Your task to perform on an android device: change notification settings in the gmail app Image 0: 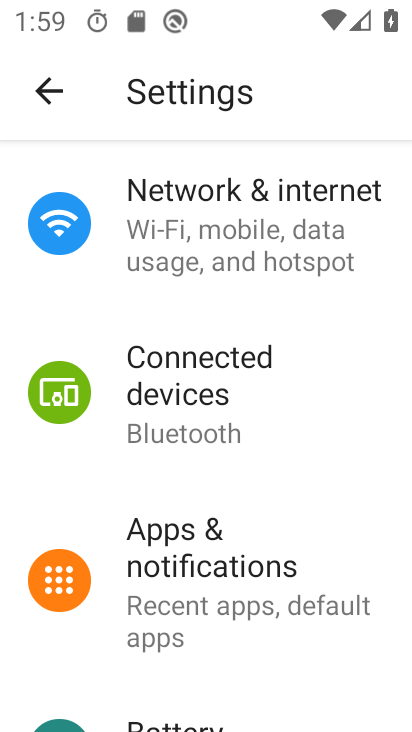
Step 0: press home button
Your task to perform on an android device: change notification settings in the gmail app Image 1: 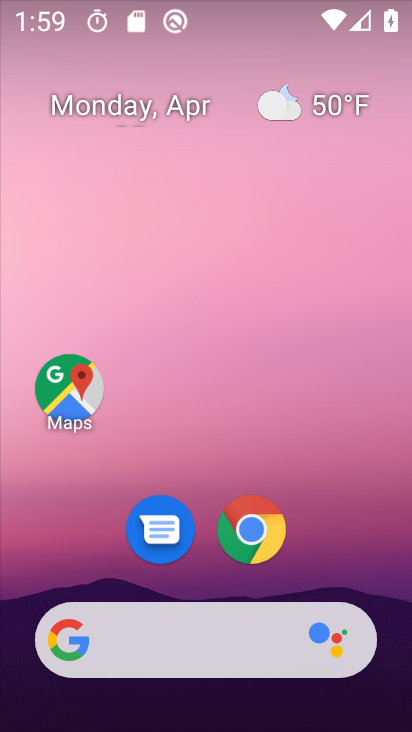
Step 1: click (333, 143)
Your task to perform on an android device: change notification settings in the gmail app Image 2: 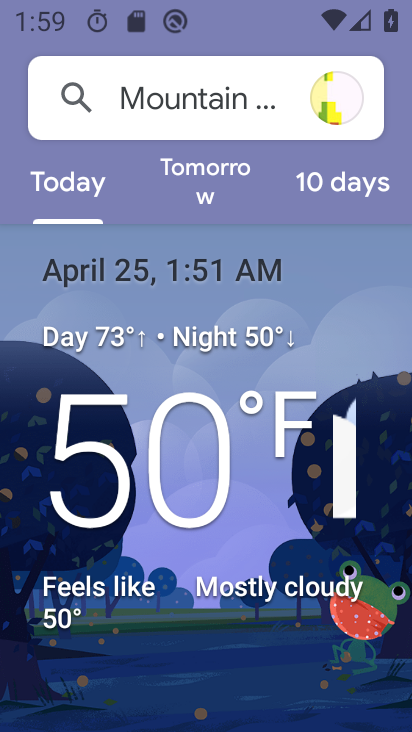
Step 2: press home button
Your task to perform on an android device: change notification settings in the gmail app Image 3: 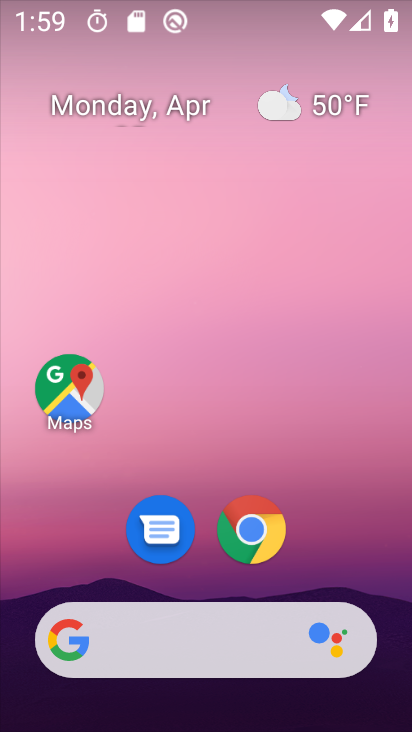
Step 3: drag from (389, 581) to (336, 120)
Your task to perform on an android device: change notification settings in the gmail app Image 4: 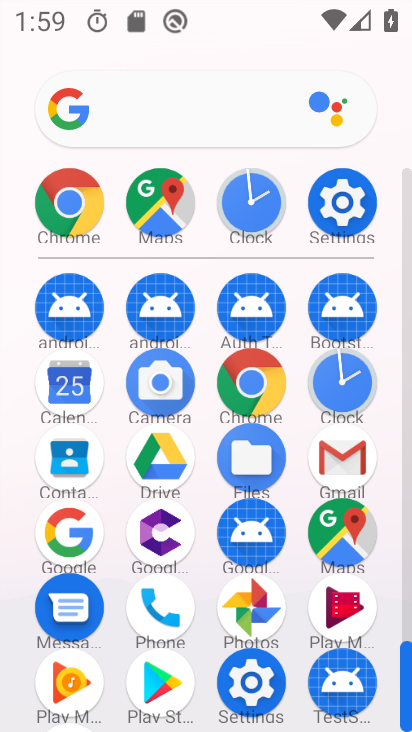
Step 4: click (346, 454)
Your task to perform on an android device: change notification settings in the gmail app Image 5: 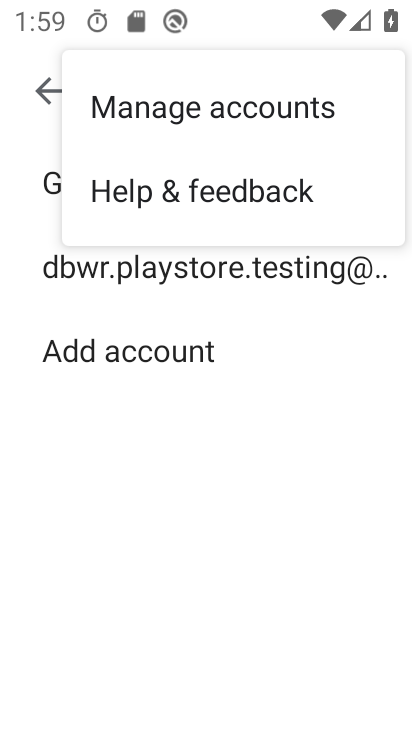
Step 5: click (187, 507)
Your task to perform on an android device: change notification settings in the gmail app Image 6: 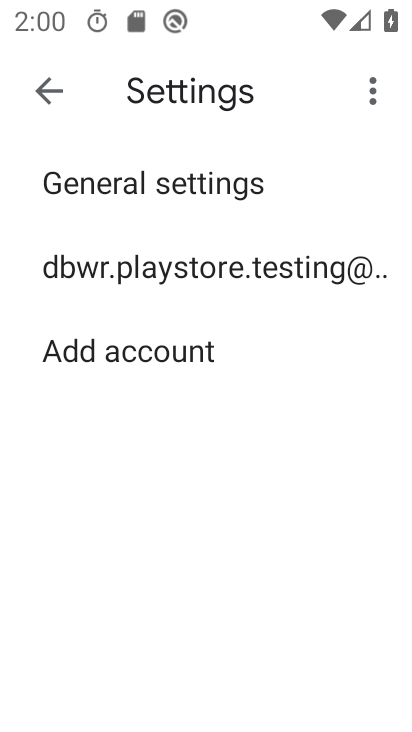
Step 6: click (99, 179)
Your task to perform on an android device: change notification settings in the gmail app Image 7: 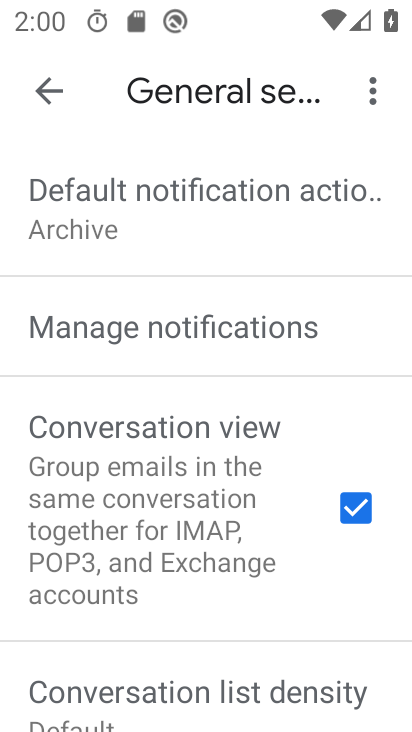
Step 7: click (137, 321)
Your task to perform on an android device: change notification settings in the gmail app Image 8: 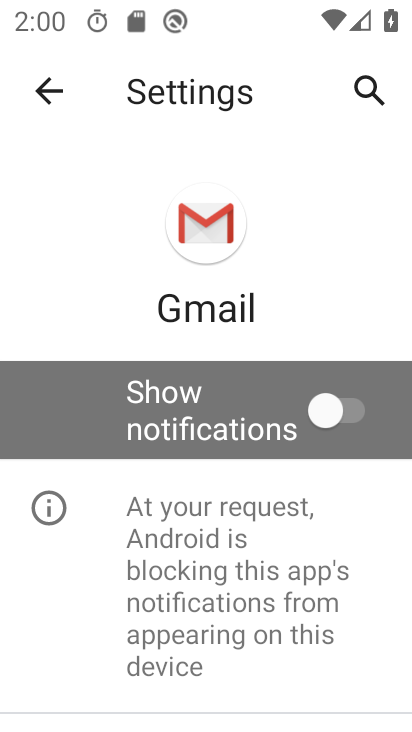
Step 8: click (364, 398)
Your task to perform on an android device: change notification settings in the gmail app Image 9: 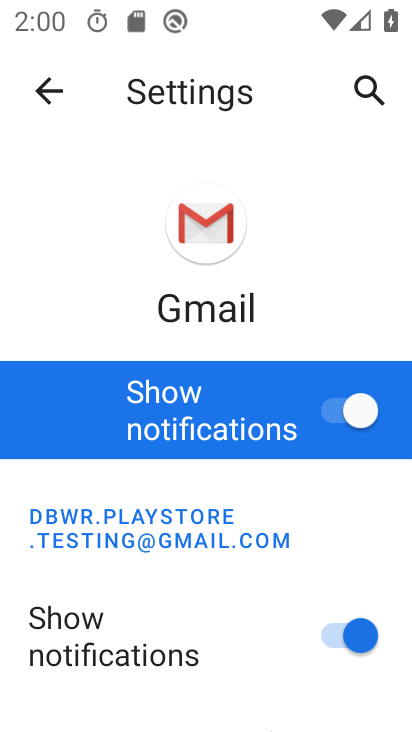
Step 9: task complete